Your task to perform on an android device: Go to Maps Image 0: 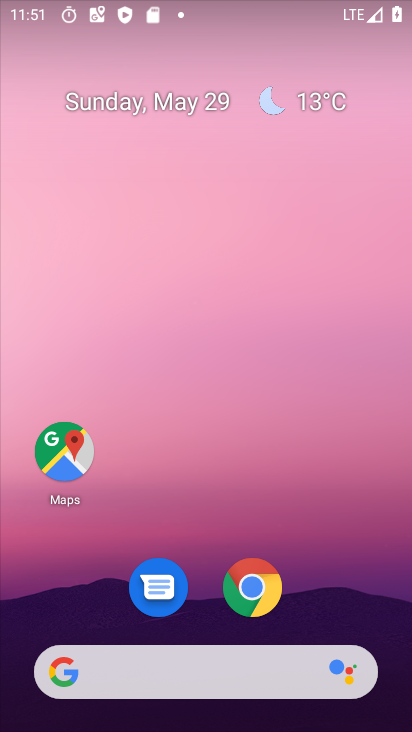
Step 0: drag from (319, 584) to (325, 111)
Your task to perform on an android device: Go to Maps Image 1: 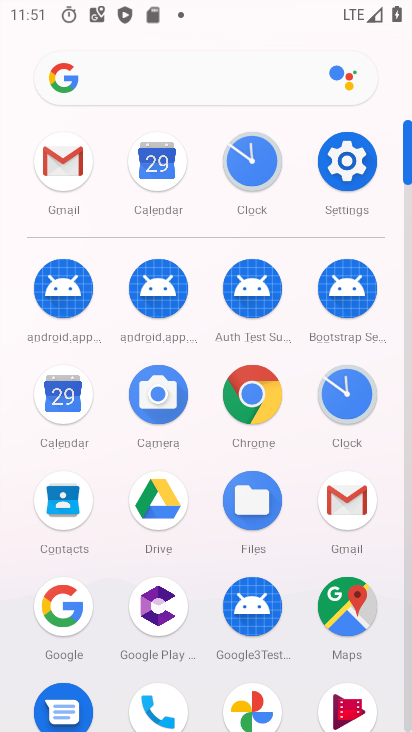
Step 1: click (354, 602)
Your task to perform on an android device: Go to Maps Image 2: 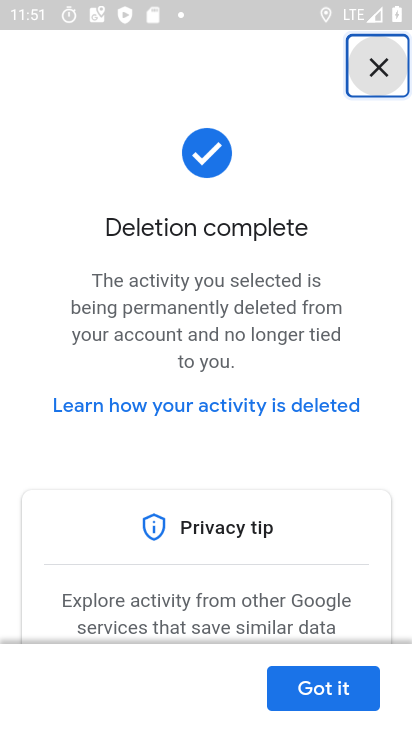
Step 2: click (313, 697)
Your task to perform on an android device: Go to Maps Image 3: 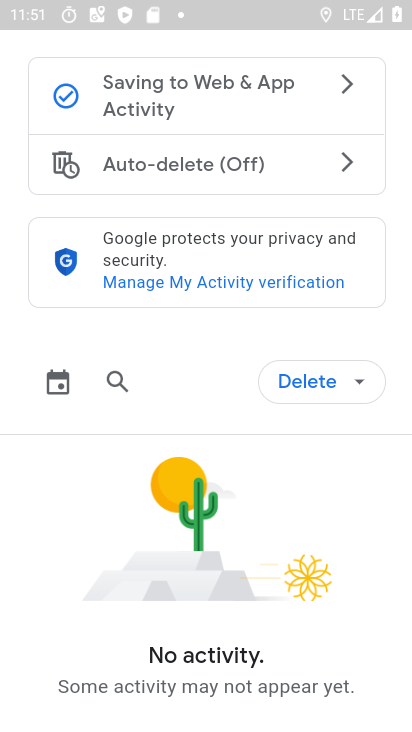
Step 3: task complete